Your task to perform on an android device: open wifi settings Image 0: 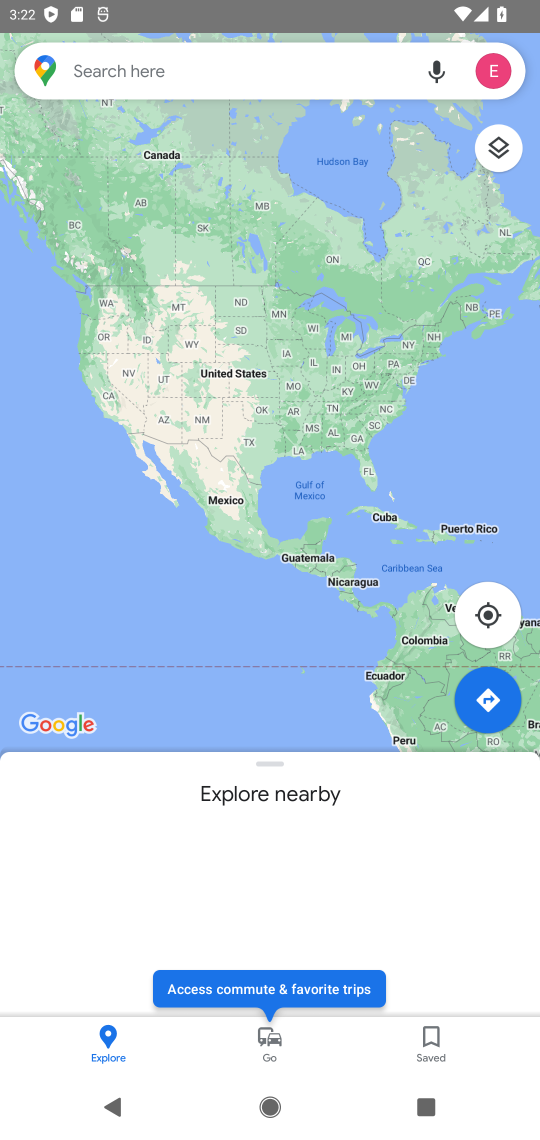
Step 0: press home button
Your task to perform on an android device: open wifi settings Image 1: 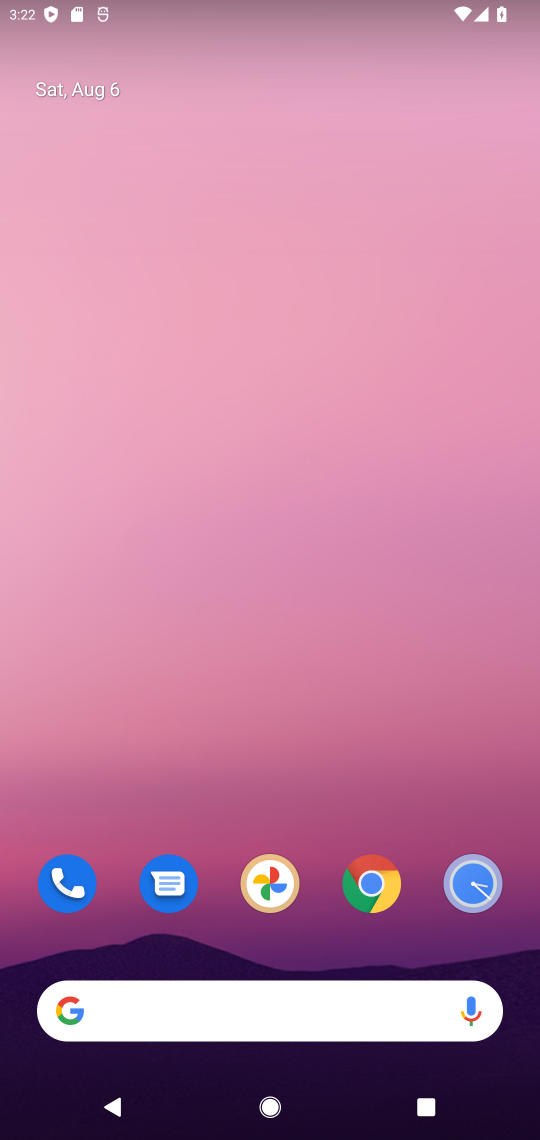
Step 1: drag from (206, 780) to (227, 21)
Your task to perform on an android device: open wifi settings Image 2: 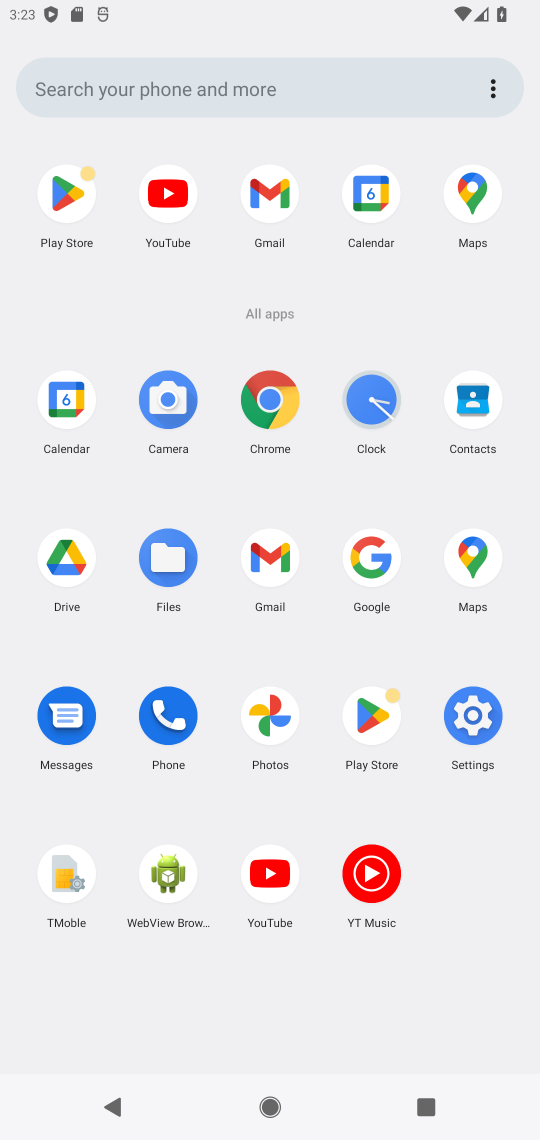
Step 2: click (465, 699)
Your task to perform on an android device: open wifi settings Image 3: 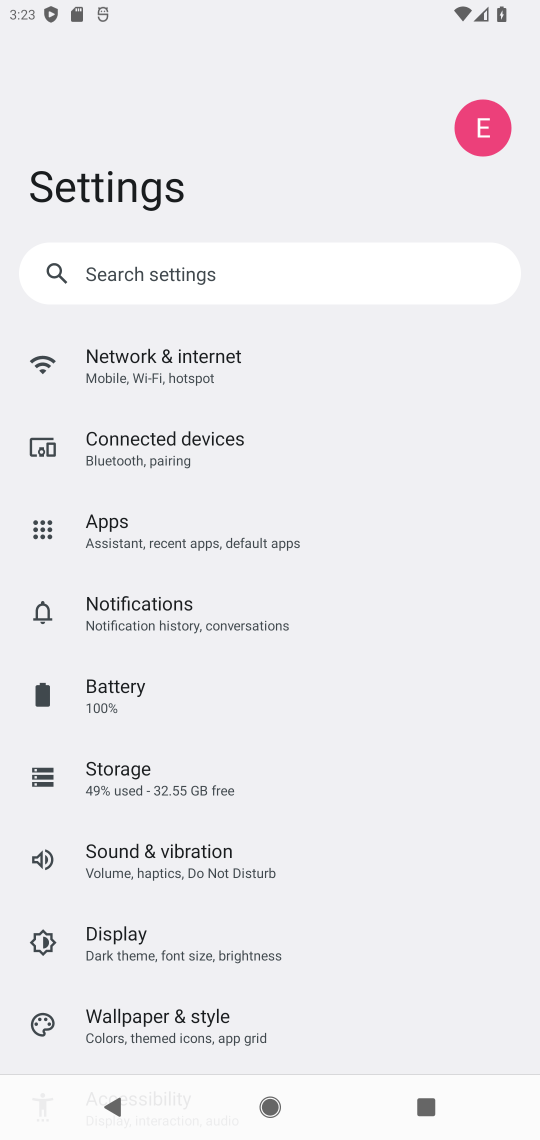
Step 3: click (226, 383)
Your task to perform on an android device: open wifi settings Image 4: 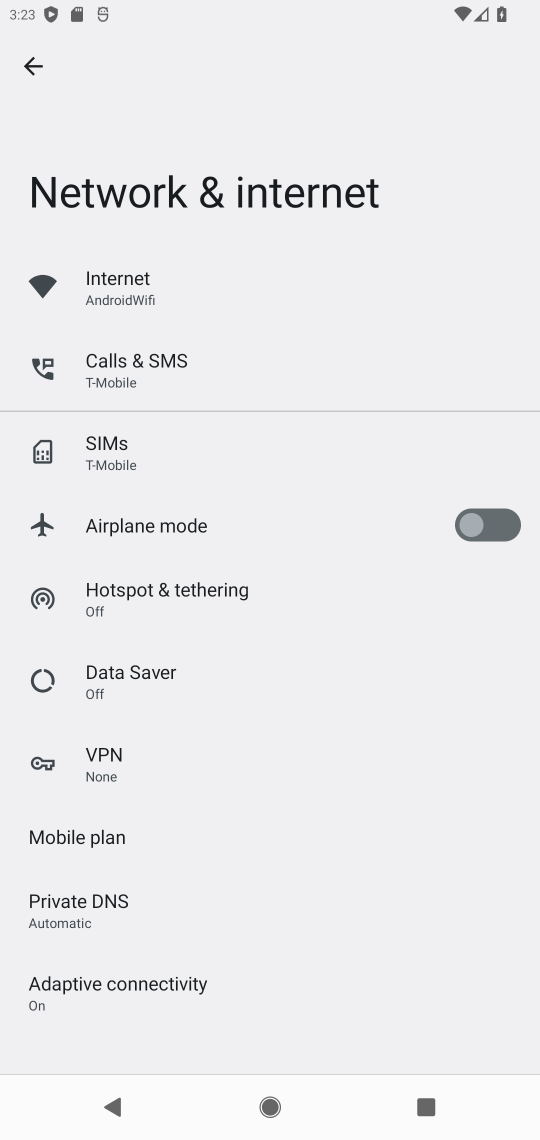
Step 4: press back button
Your task to perform on an android device: open wifi settings Image 5: 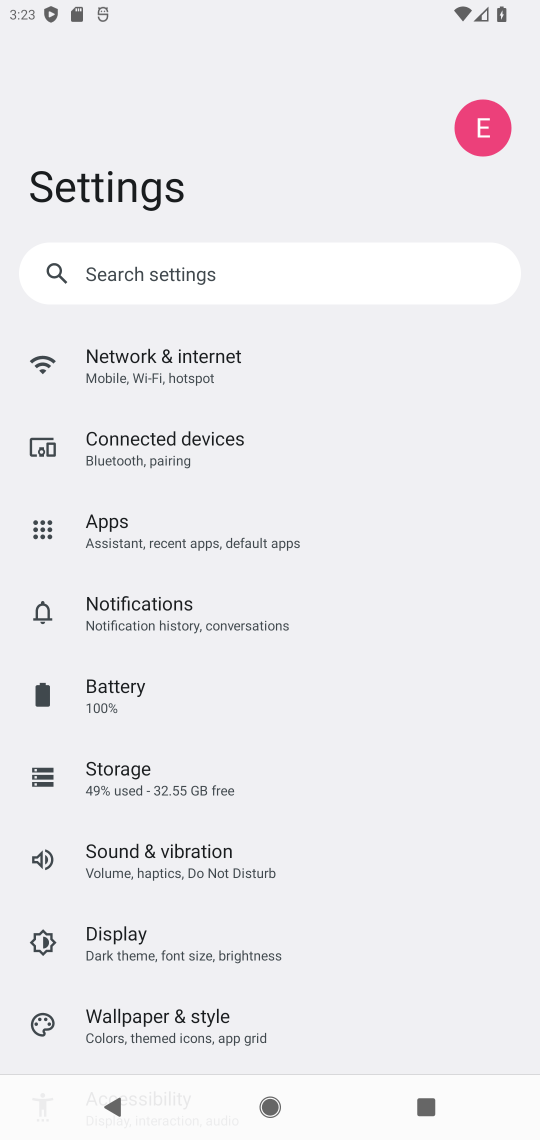
Step 5: click (207, 377)
Your task to perform on an android device: open wifi settings Image 6: 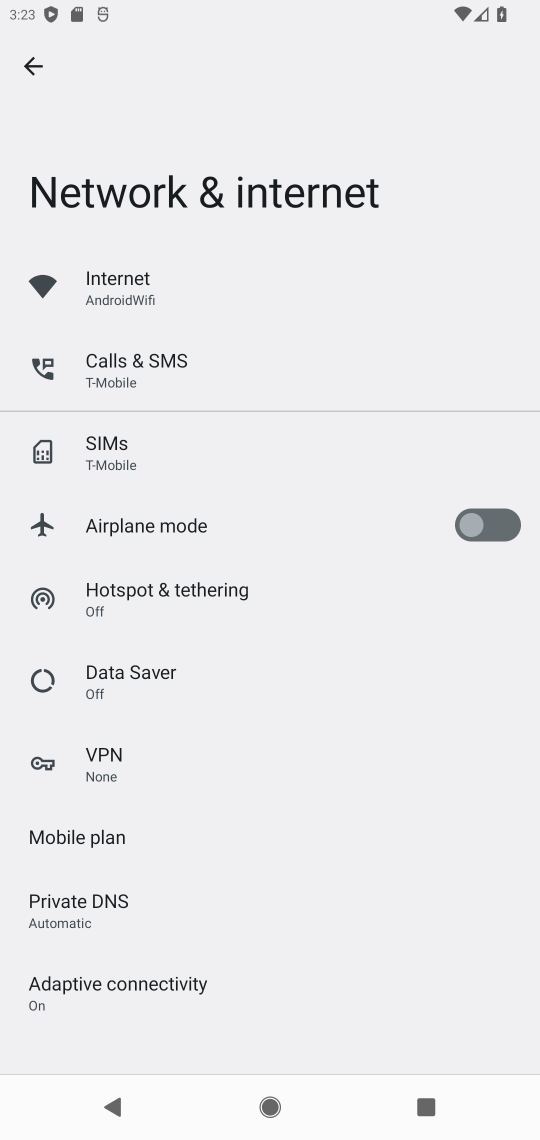
Step 6: click (175, 282)
Your task to perform on an android device: open wifi settings Image 7: 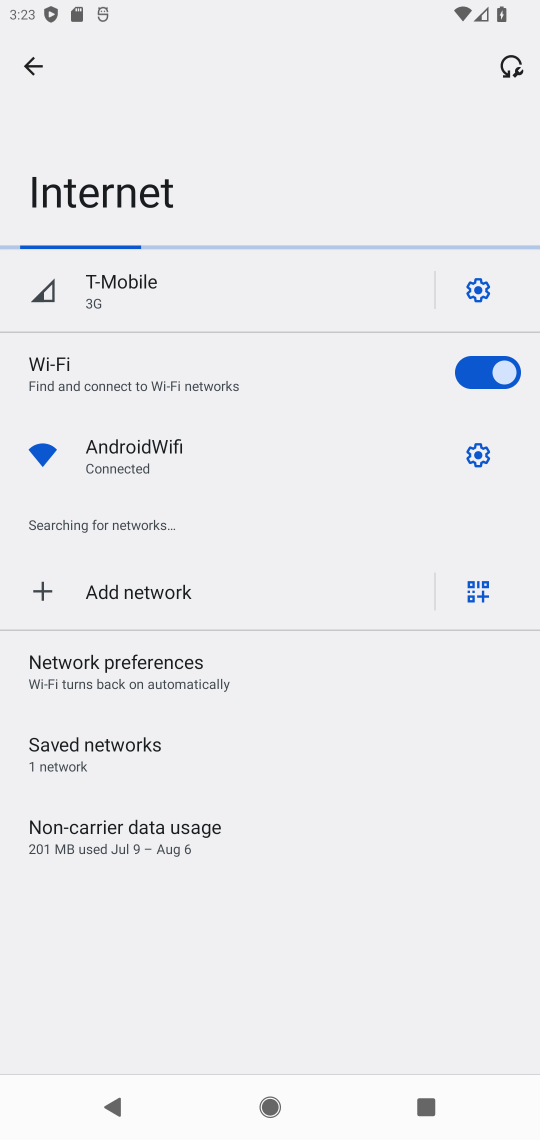
Step 7: click (223, 453)
Your task to perform on an android device: open wifi settings Image 8: 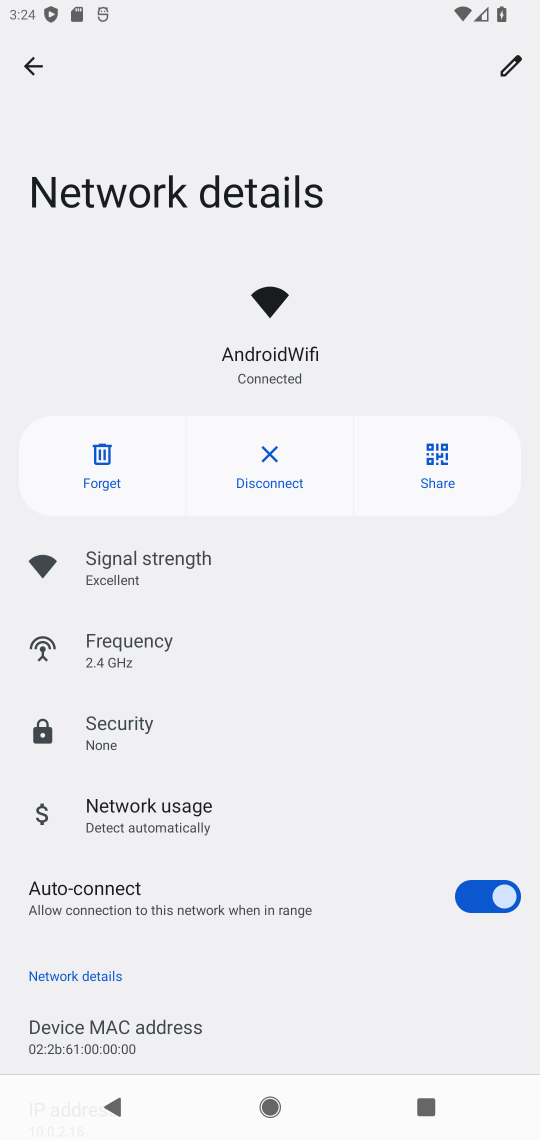
Step 8: task complete